Your task to perform on an android device: turn pop-ups on in chrome Image 0: 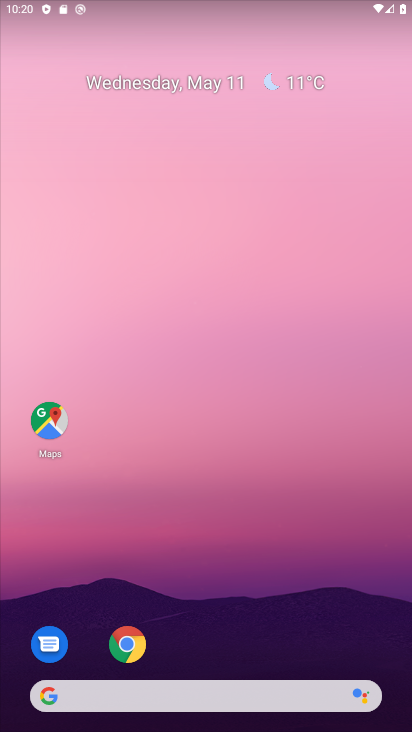
Step 0: click (134, 655)
Your task to perform on an android device: turn pop-ups on in chrome Image 1: 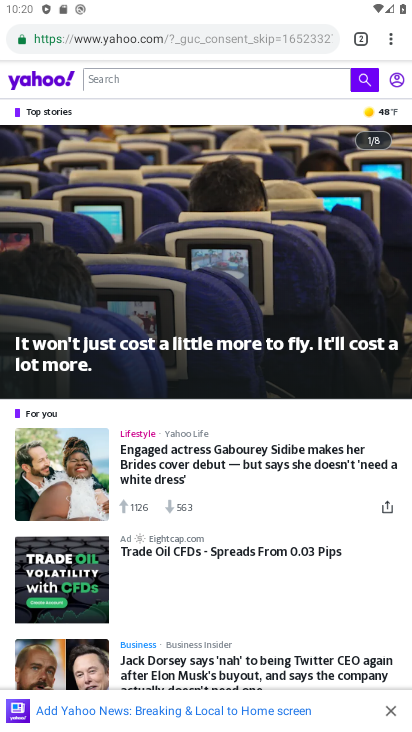
Step 1: drag from (390, 42) to (234, 475)
Your task to perform on an android device: turn pop-ups on in chrome Image 2: 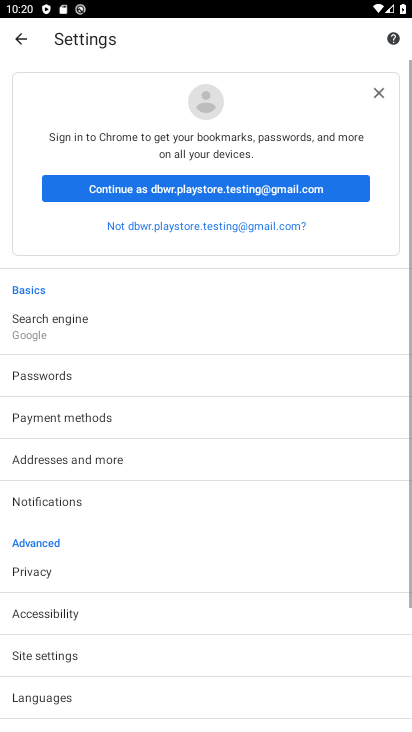
Step 2: click (43, 656)
Your task to perform on an android device: turn pop-ups on in chrome Image 3: 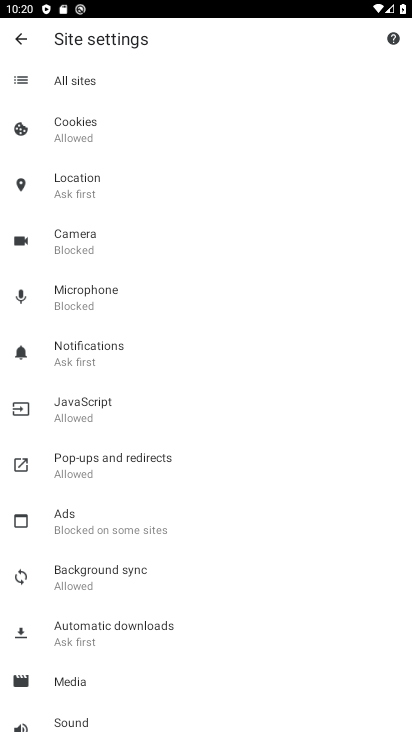
Step 3: click (80, 473)
Your task to perform on an android device: turn pop-ups on in chrome Image 4: 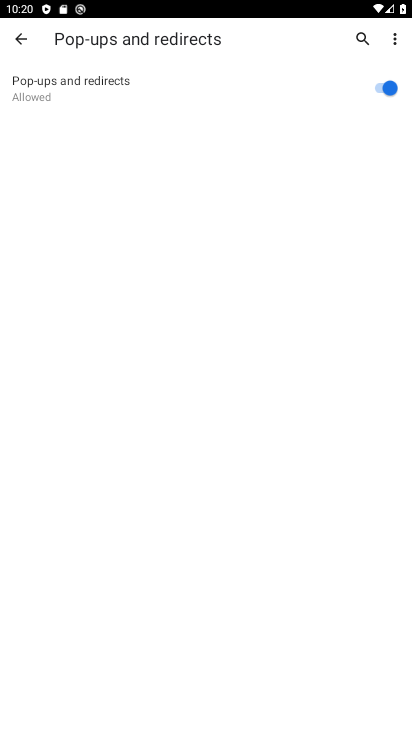
Step 4: task complete